Your task to perform on an android device: Go to display settings Image 0: 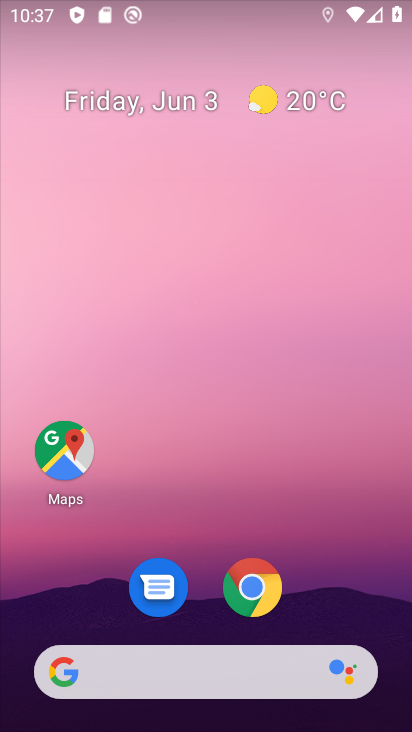
Step 0: drag from (313, 519) to (206, 22)
Your task to perform on an android device: Go to display settings Image 1: 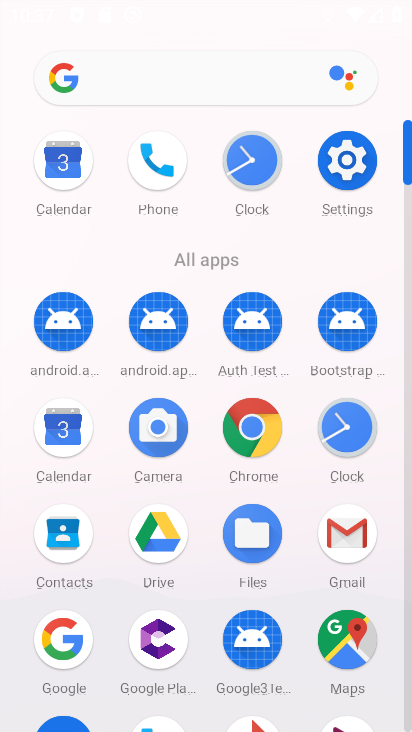
Step 1: click (345, 163)
Your task to perform on an android device: Go to display settings Image 2: 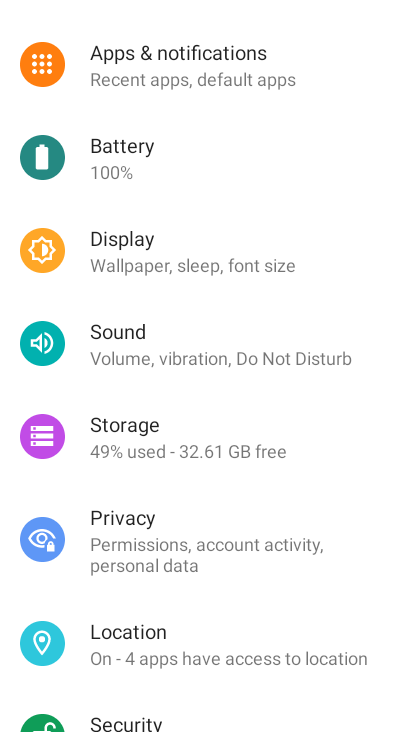
Step 2: click (210, 266)
Your task to perform on an android device: Go to display settings Image 3: 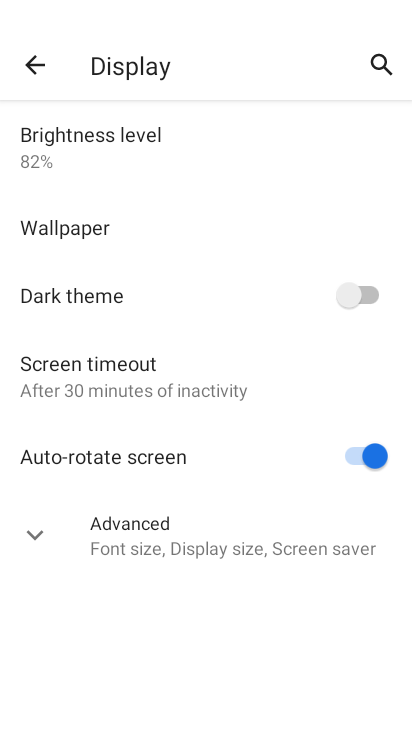
Step 3: task complete